Your task to perform on an android device: What is the news today? Image 0: 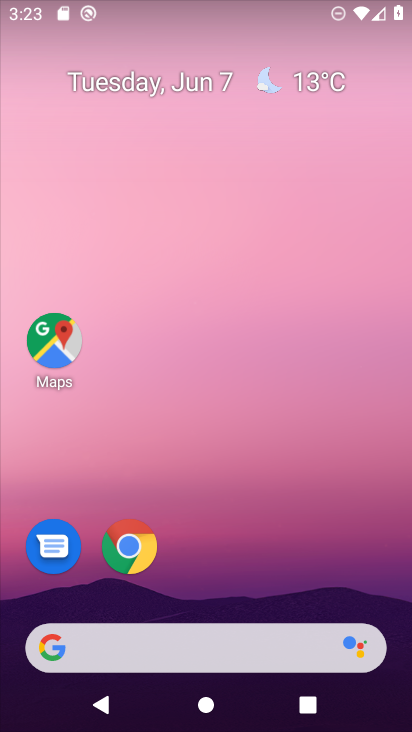
Step 0: drag from (291, 648) to (255, 558)
Your task to perform on an android device: What is the news today? Image 1: 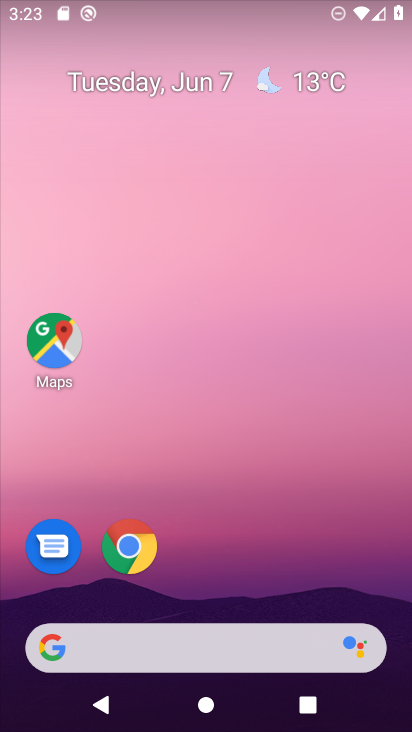
Step 1: click (147, 615)
Your task to perform on an android device: What is the news today? Image 2: 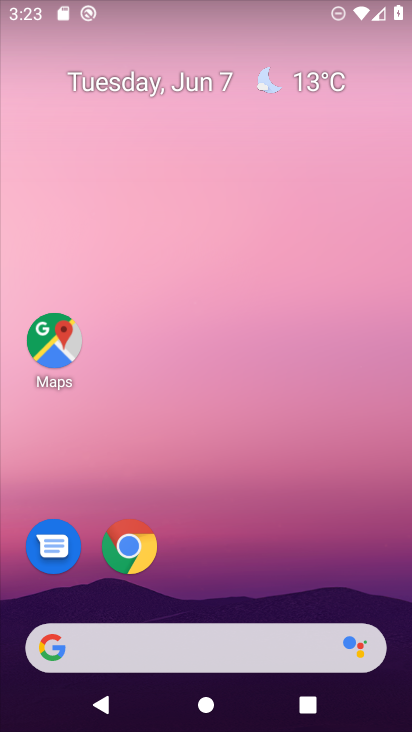
Step 2: click (137, 637)
Your task to perform on an android device: What is the news today? Image 3: 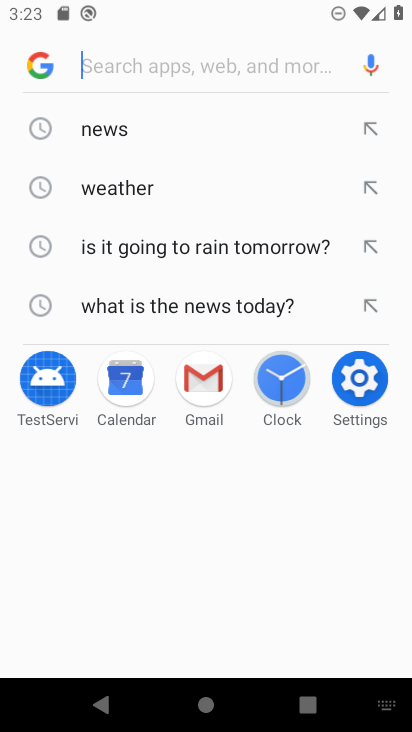
Step 3: click (100, 133)
Your task to perform on an android device: What is the news today? Image 4: 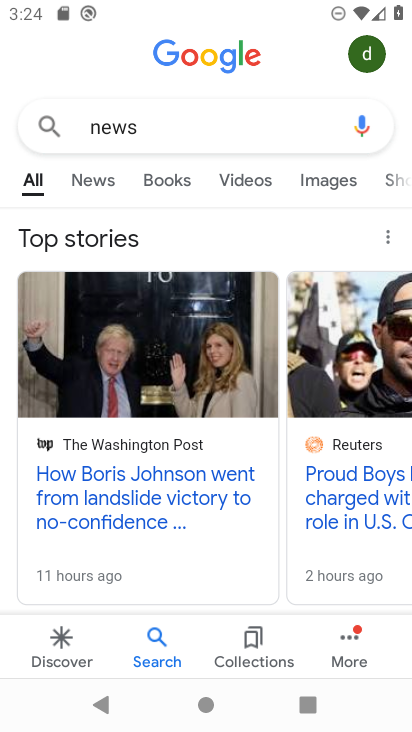
Step 4: task complete